Your task to perform on an android device: turn pop-ups on in chrome Image 0: 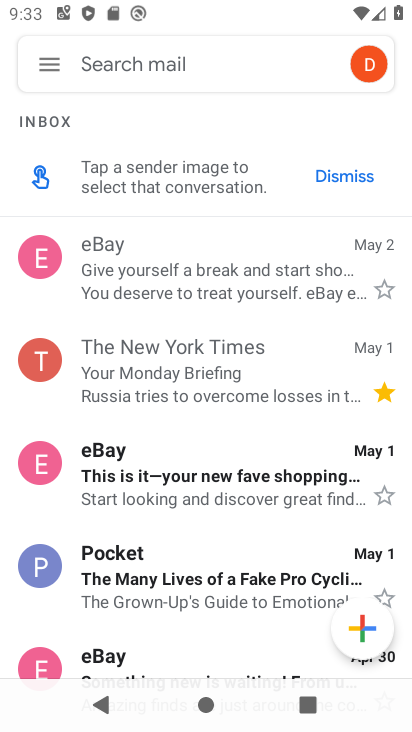
Step 0: press home button
Your task to perform on an android device: turn pop-ups on in chrome Image 1: 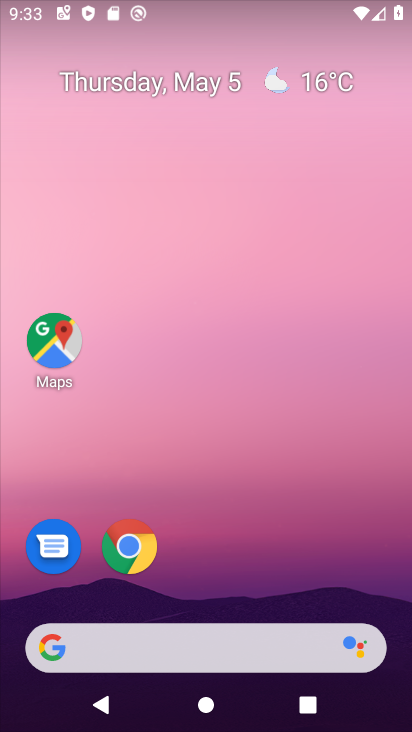
Step 1: drag from (266, 613) to (162, 190)
Your task to perform on an android device: turn pop-ups on in chrome Image 2: 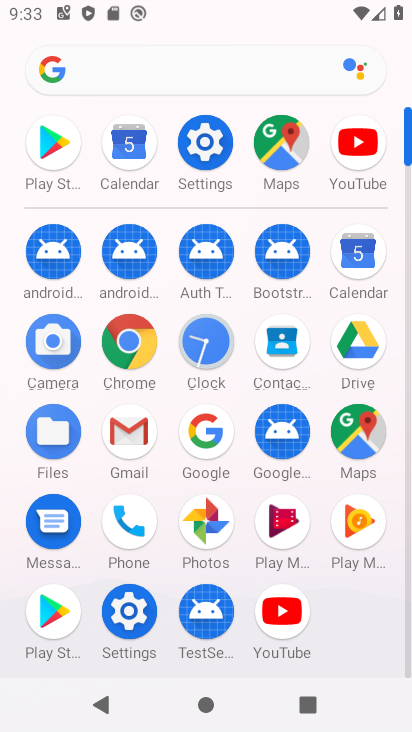
Step 2: click (123, 349)
Your task to perform on an android device: turn pop-ups on in chrome Image 3: 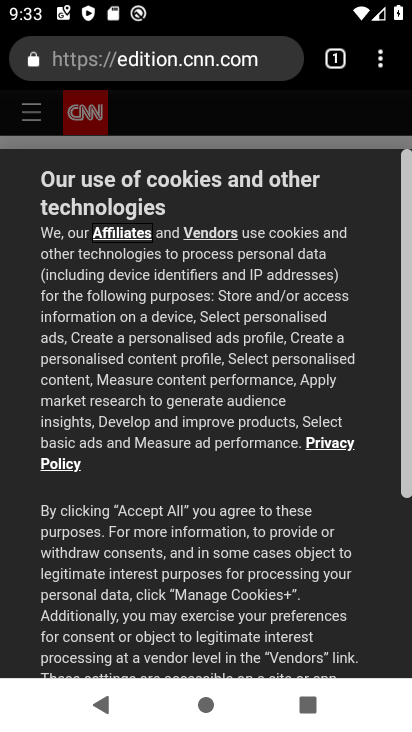
Step 3: click (371, 75)
Your task to perform on an android device: turn pop-ups on in chrome Image 4: 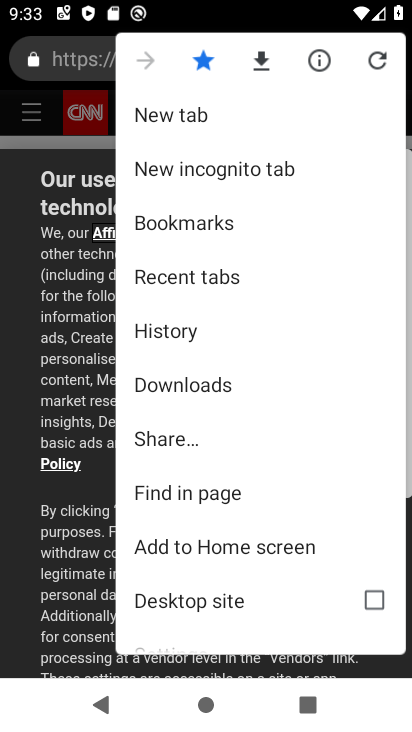
Step 4: drag from (230, 593) to (245, 365)
Your task to perform on an android device: turn pop-ups on in chrome Image 5: 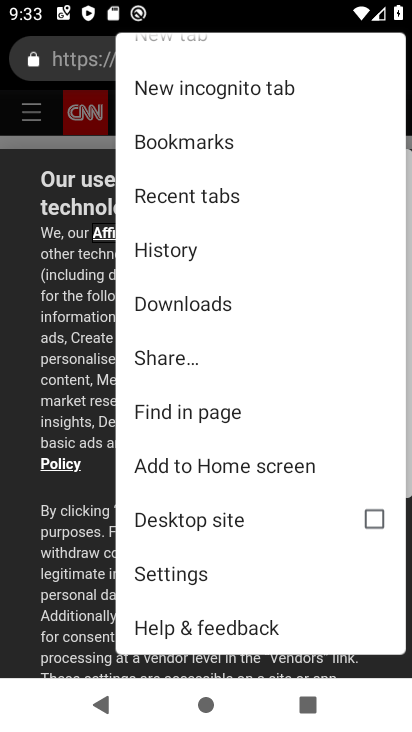
Step 5: click (227, 578)
Your task to perform on an android device: turn pop-ups on in chrome Image 6: 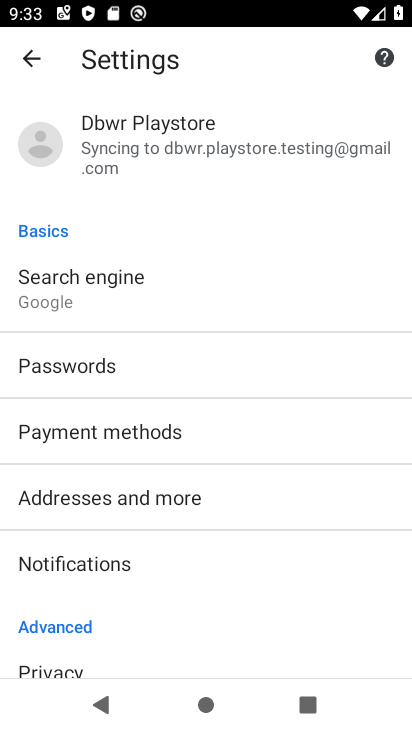
Step 6: drag from (185, 658) to (170, 519)
Your task to perform on an android device: turn pop-ups on in chrome Image 7: 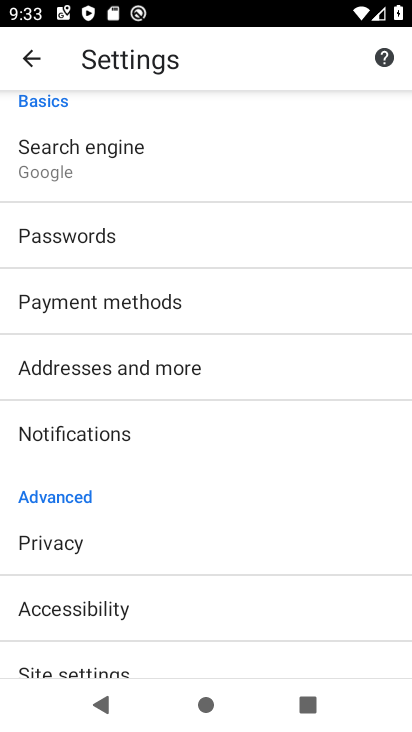
Step 7: drag from (226, 639) to (220, 484)
Your task to perform on an android device: turn pop-ups on in chrome Image 8: 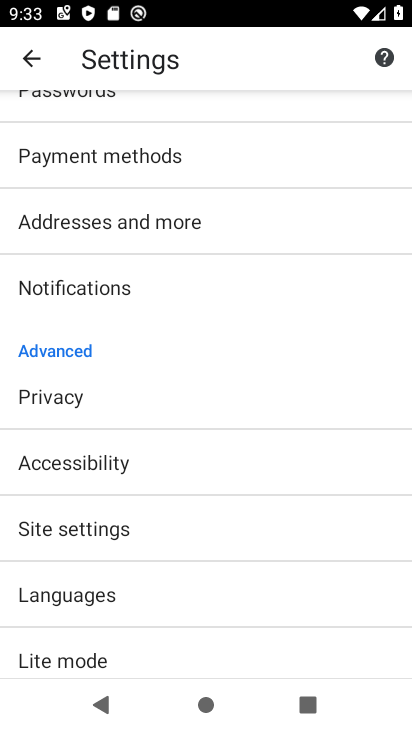
Step 8: click (129, 532)
Your task to perform on an android device: turn pop-ups on in chrome Image 9: 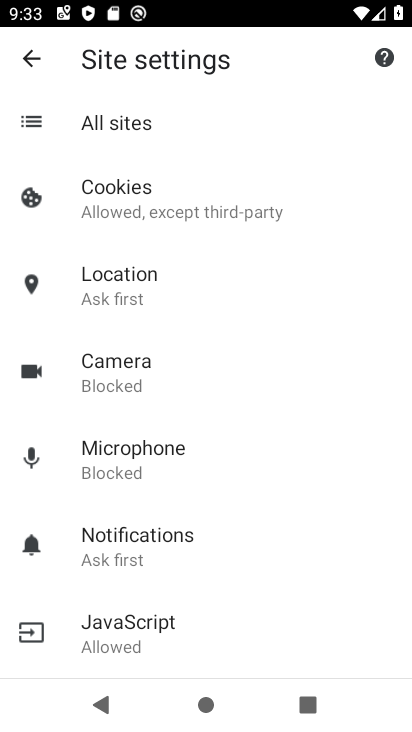
Step 9: drag from (132, 577) to (125, 387)
Your task to perform on an android device: turn pop-ups on in chrome Image 10: 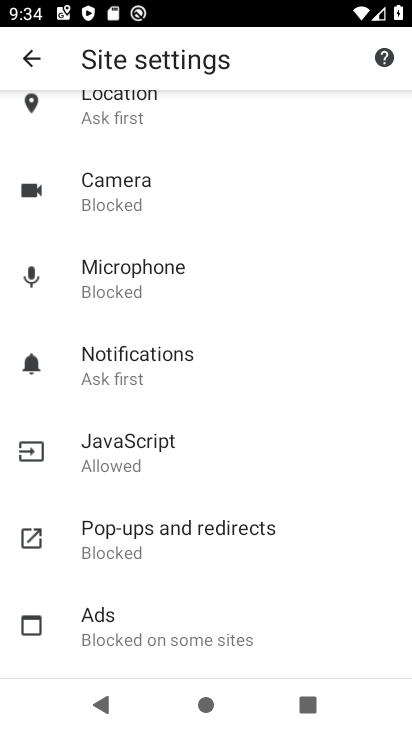
Step 10: click (146, 522)
Your task to perform on an android device: turn pop-ups on in chrome Image 11: 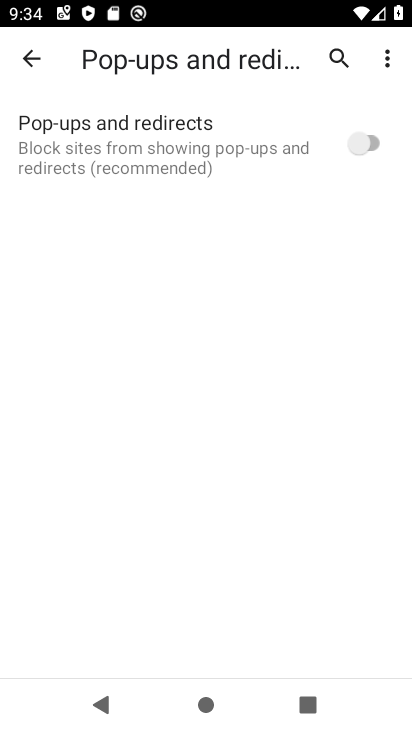
Step 11: click (375, 145)
Your task to perform on an android device: turn pop-ups on in chrome Image 12: 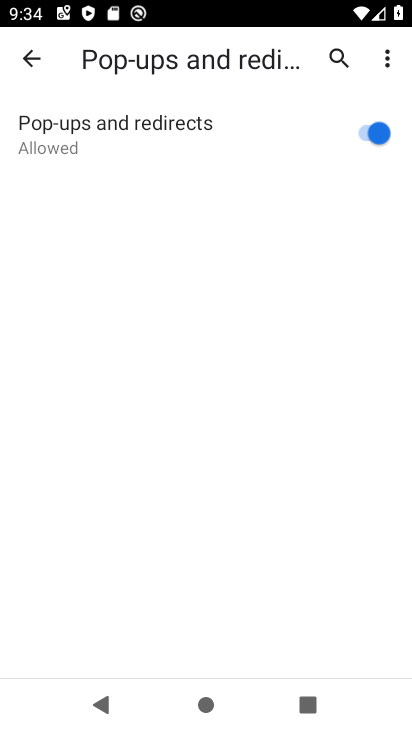
Step 12: task complete